Your task to perform on an android device: turn on translation in the chrome app Image 0: 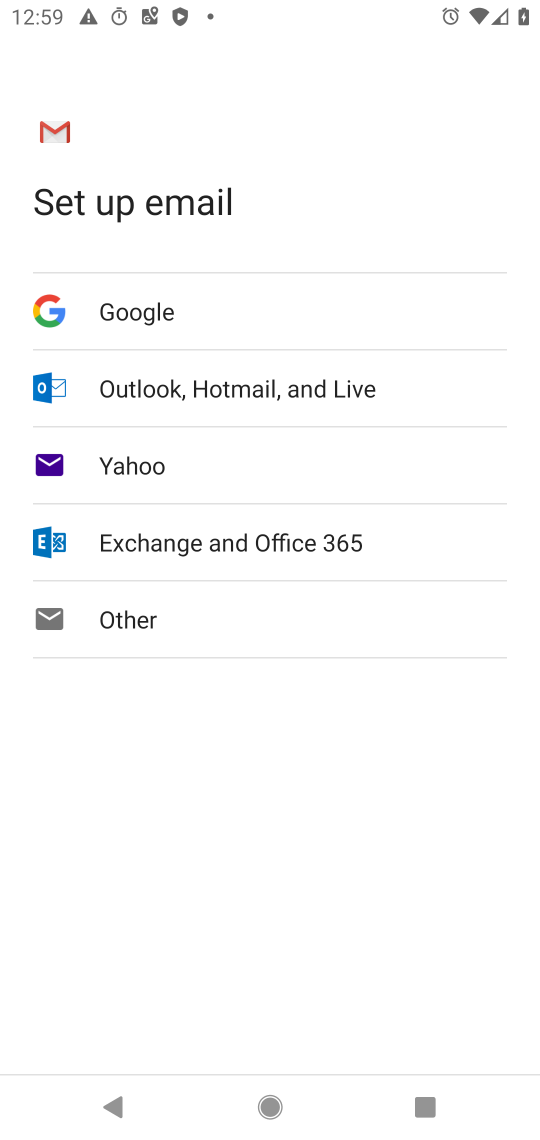
Step 0: press home button
Your task to perform on an android device: turn on translation in the chrome app Image 1: 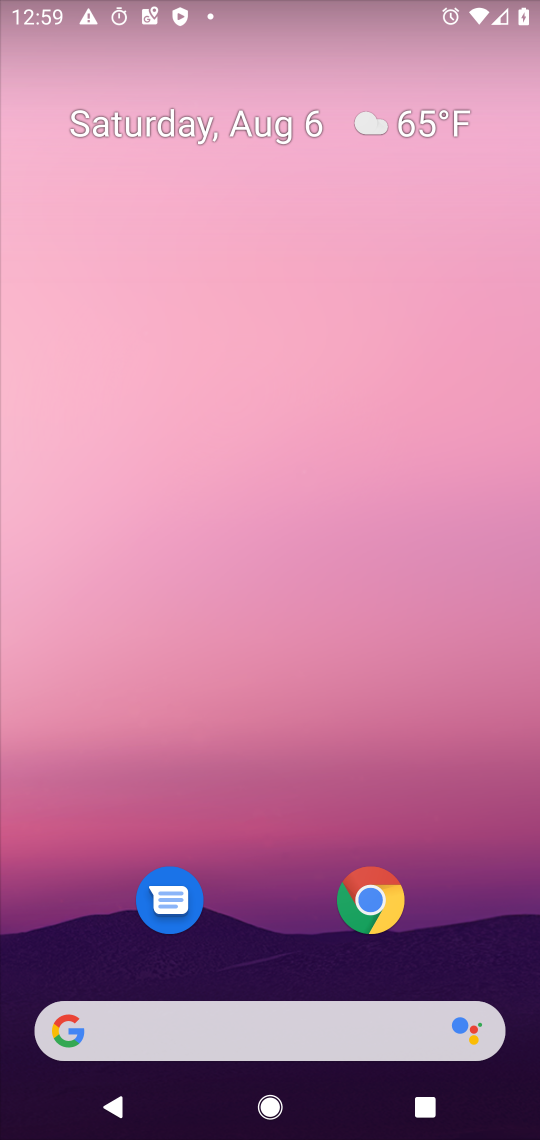
Step 1: click (379, 910)
Your task to perform on an android device: turn on translation in the chrome app Image 2: 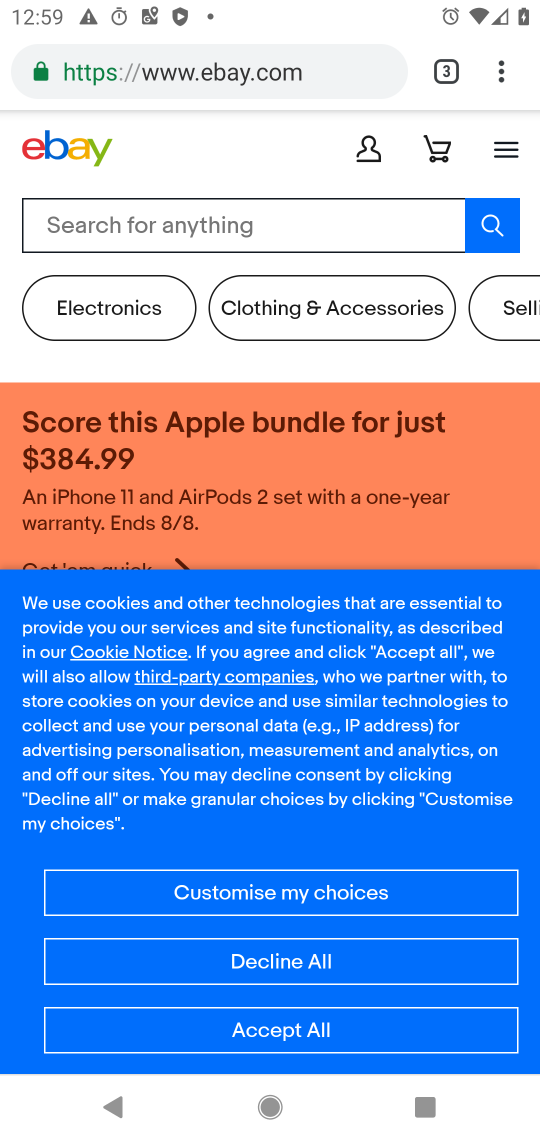
Step 2: click (500, 82)
Your task to perform on an android device: turn on translation in the chrome app Image 3: 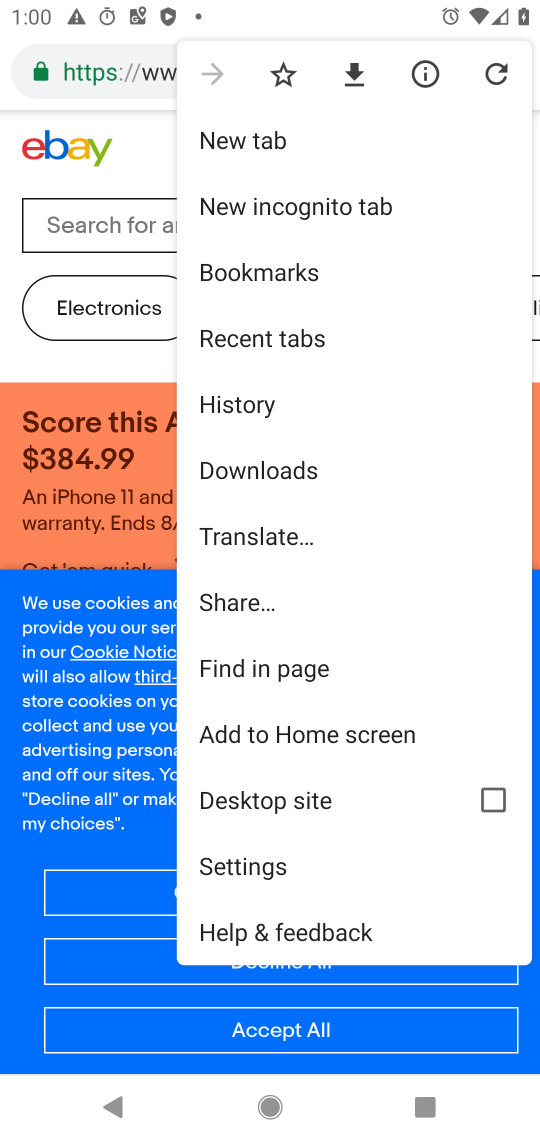
Step 3: click (272, 865)
Your task to perform on an android device: turn on translation in the chrome app Image 4: 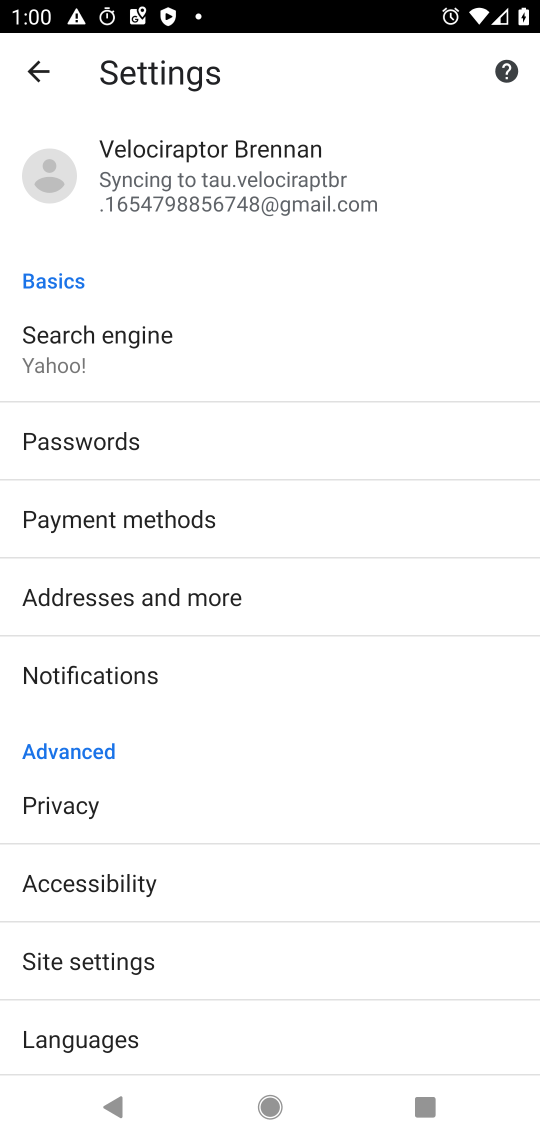
Step 4: click (96, 1034)
Your task to perform on an android device: turn on translation in the chrome app Image 5: 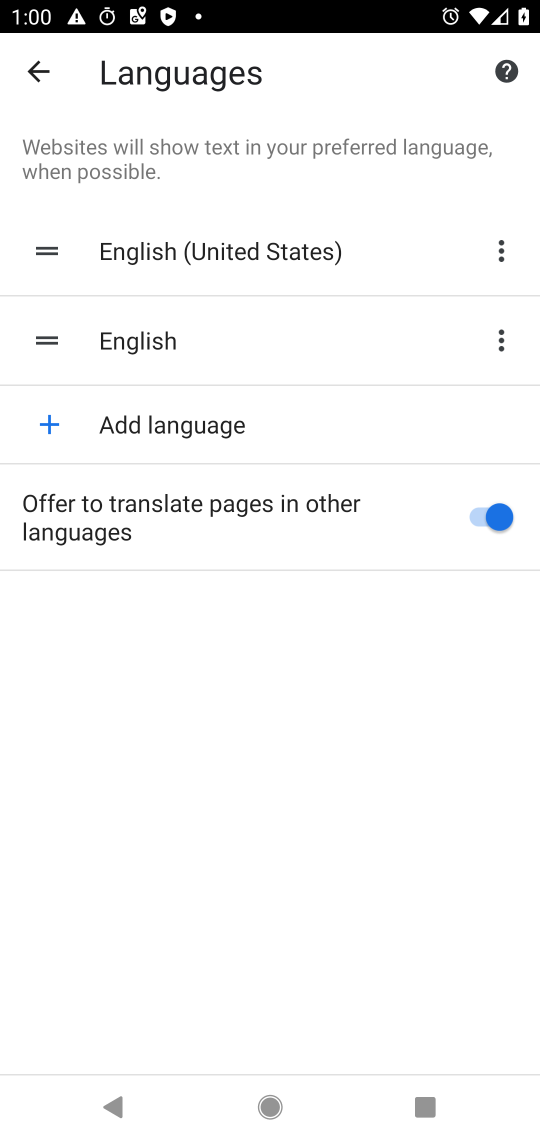
Step 5: task complete